Your task to perform on an android device: Open display settings Image 0: 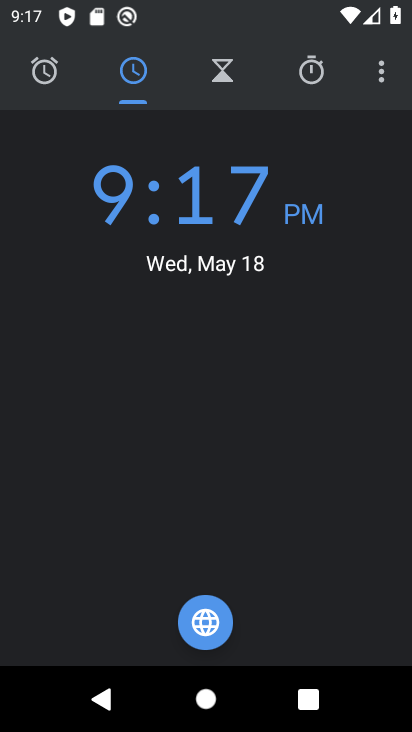
Step 0: press home button
Your task to perform on an android device: Open display settings Image 1: 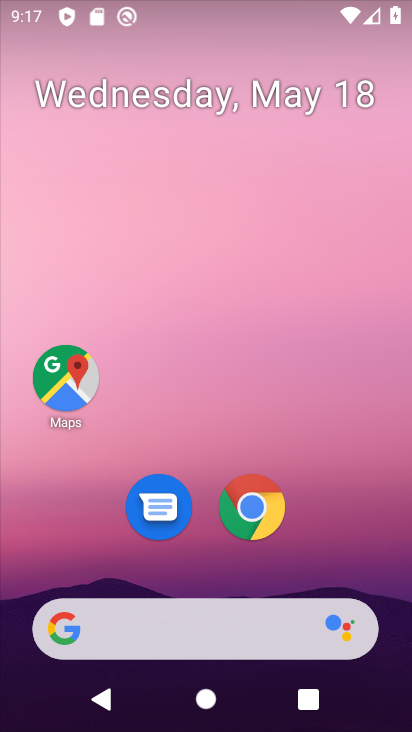
Step 1: drag from (353, 490) to (283, 31)
Your task to perform on an android device: Open display settings Image 2: 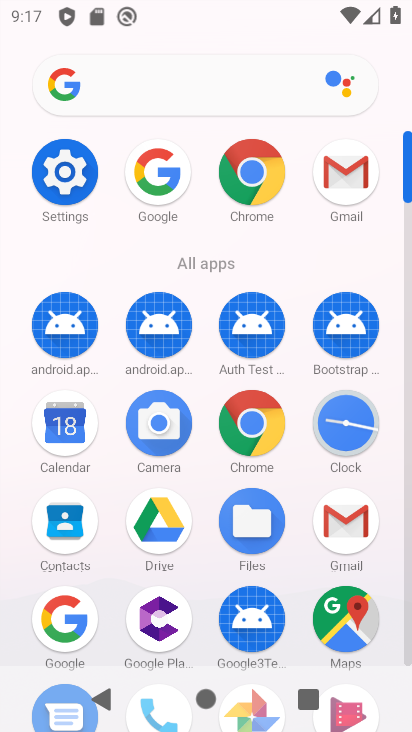
Step 2: click (62, 158)
Your task to perform on an android device: Open display settings Image 3: 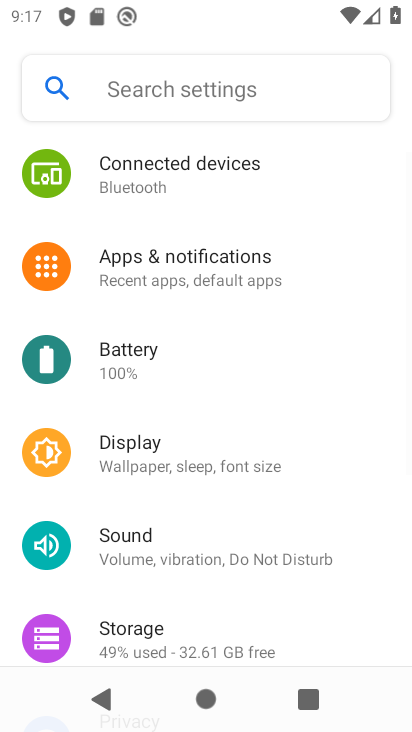
Step 3: click (142, 464)
Your task to perform on an android device: Open display settings Image 4: 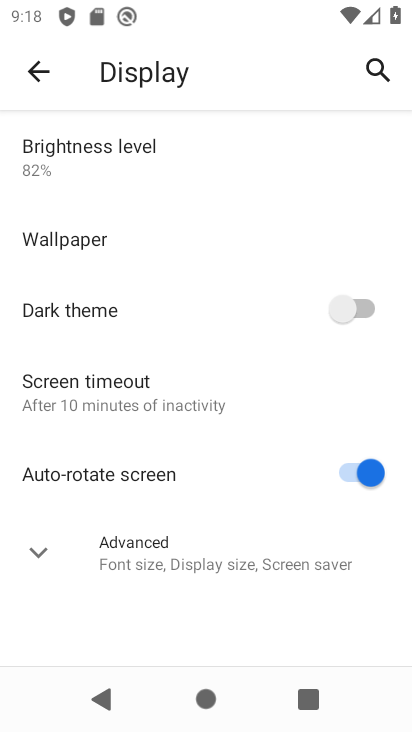
Step 4: task complete